Your task to perform on an android device: turn on improve location accuracy Image 0: 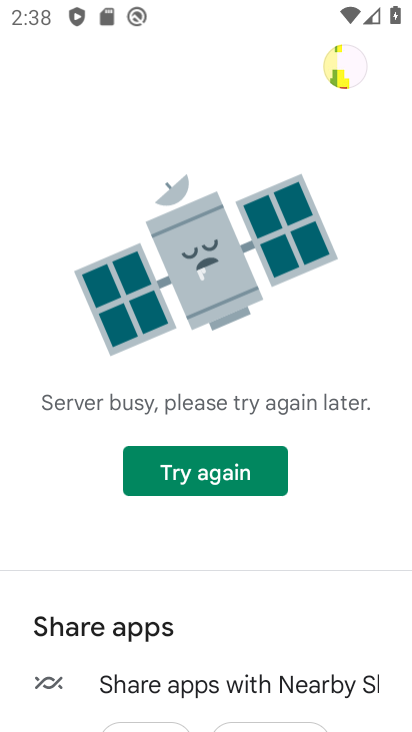
Step 0: press home button
Your task to perform on an android device: turn on improve location accuracy Image 1: 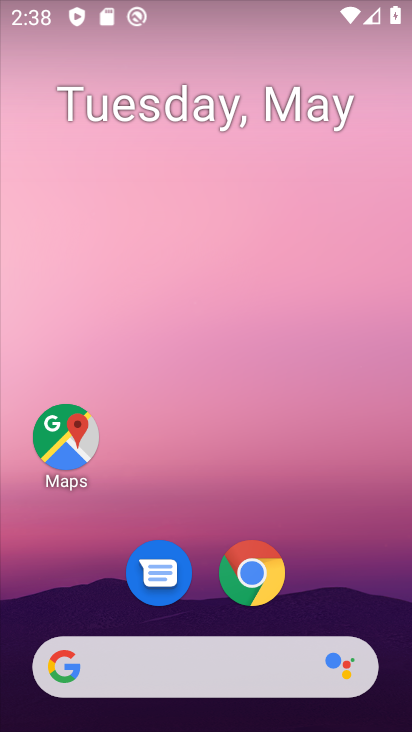
Step 1: drag from (72, 627) to (191, 65)
Your task to perform on an android device: turn on improve location accuracy Image 2: 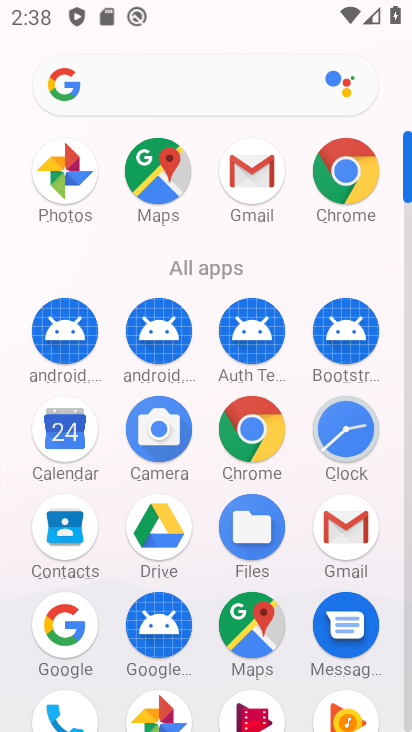
Step 2: drag from (194, 607) to (265, 348)
Your task to perform on an android device: turn on improve location accuracy Image 3: 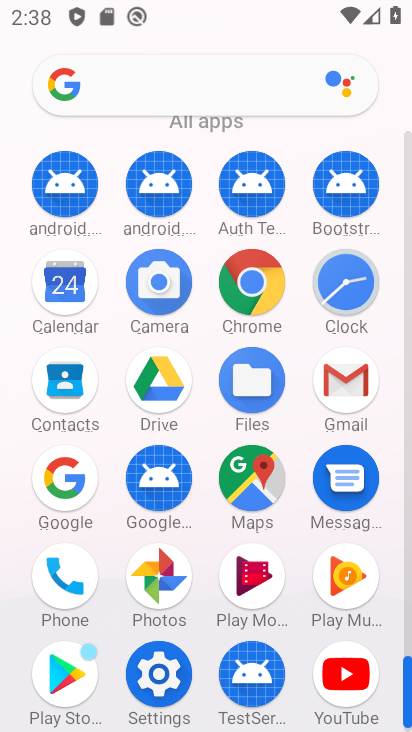
Step 3: drag from (143, 675) to (266, 362)
Your task to perform on an android device: turn on improve location accuracy Image 4: 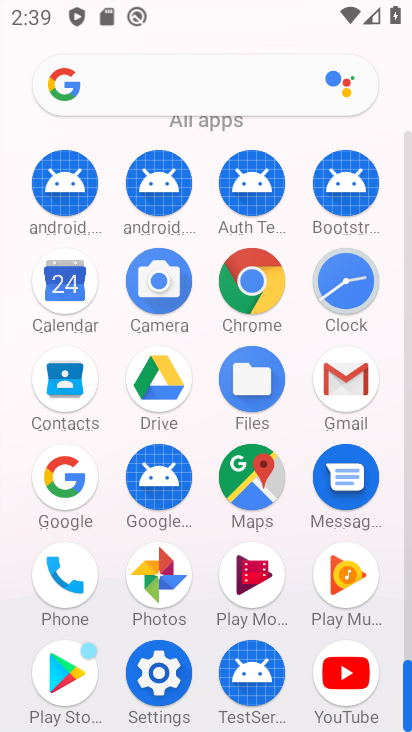
Step 4: click (166, 687)
Your task to perform on an android device: turn on improve location accuracy Image 5: 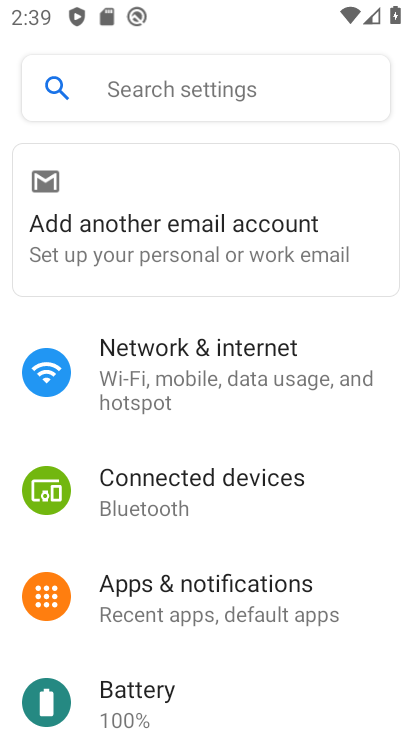
Step 5: drag from (166, 664) to (314, 147)
Your task to perform on an android device: turn on improve location accuracy Image 6: 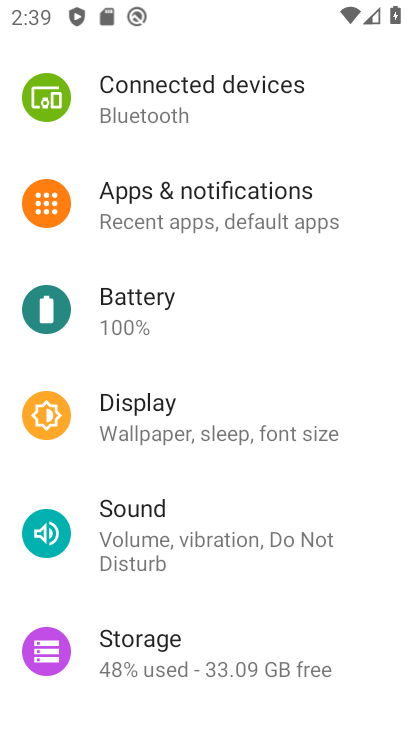
Step 6: drag from (158, 687) to (268, 206)
Your task to perform on an android device: turn on improve location accuracy Image 7: 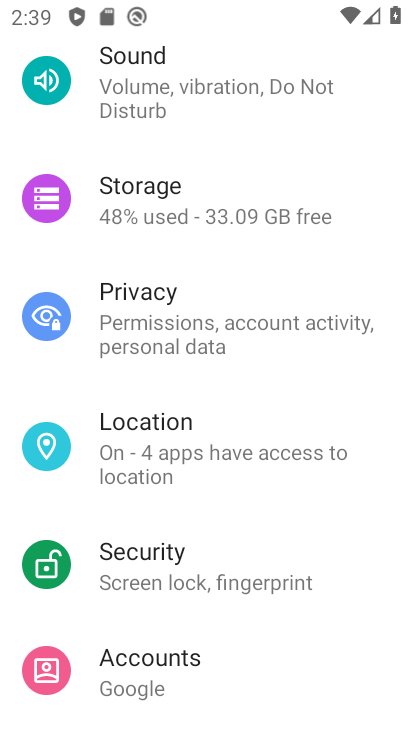
Step 7: click (165, 436)
Your task to perform on an android device: turn on improve location accuracy Image 8: 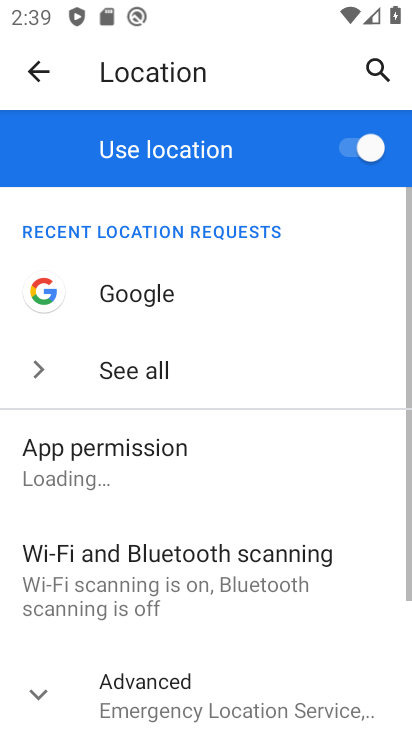
Step 8: drag from (184, 641) to (260, 319)
Your task to perform on an android device: turn on improve location accuracy Image 9: 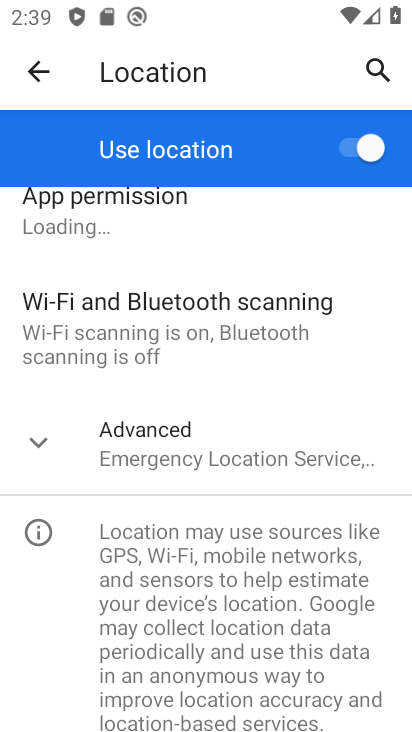
Step 9: click (219, 458)
Your task to perform on an android device: turn on improve location accuracy Image 10: 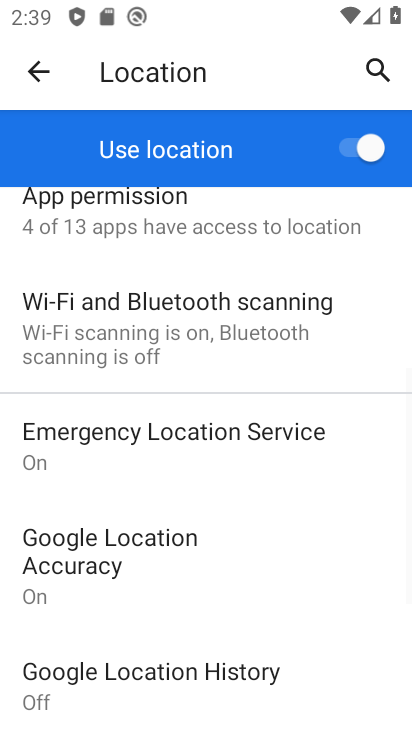
Step 10: drag from (145, 667) to (192, 493)
Your task to perform on an android device: turn on improve location accuracy Image 11: 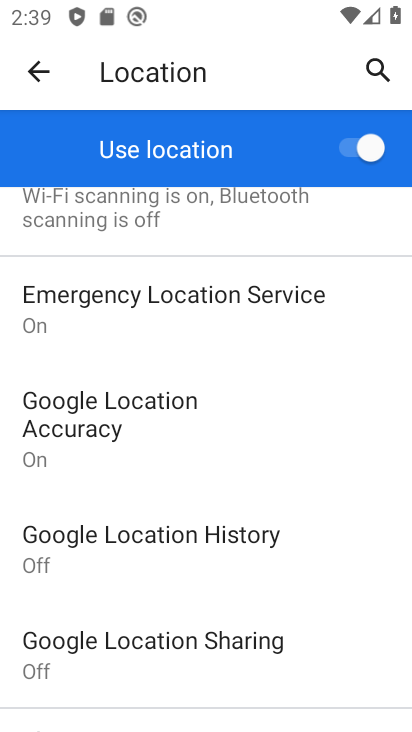
Step 11: click (128, 440)
Your task to perform on an android device: turn on improve location accuracy Image 12: 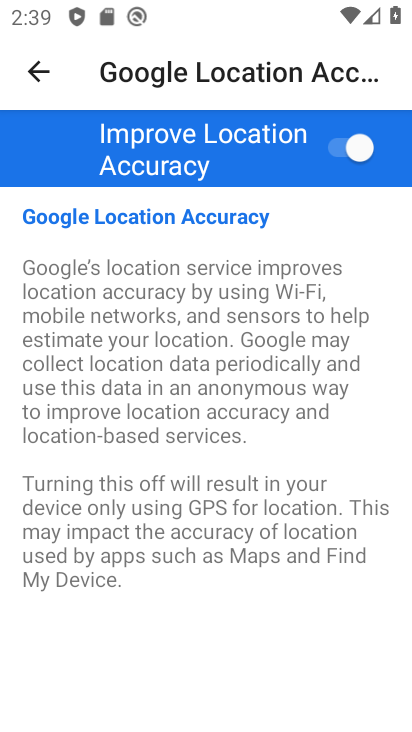
Step 12: task complete